Your task to perform on an android device: Go to battery settings Image 0: 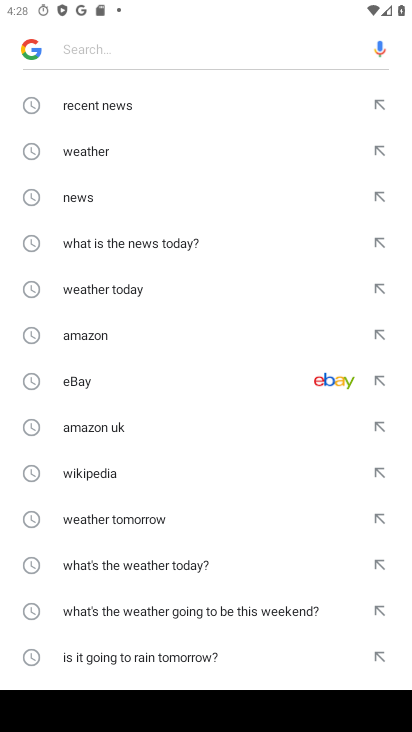
Step 0: press home button
Your task to perform on an android device: Go to battery settings Image 1: 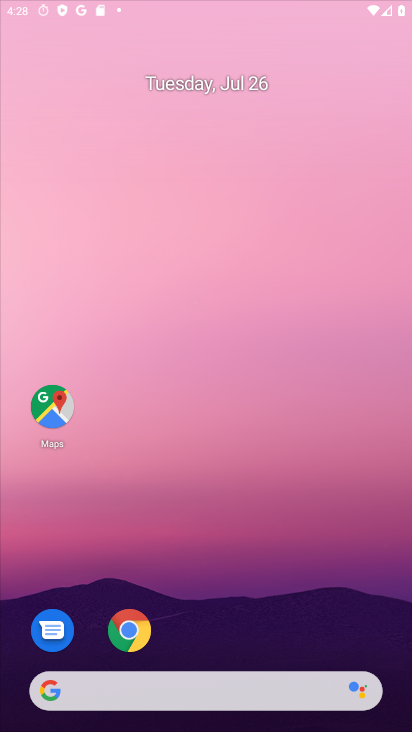
Step 1: drag from (316, 589) to (152, 80)
Your task to perform on an android device: Go to battery settings Image 2: 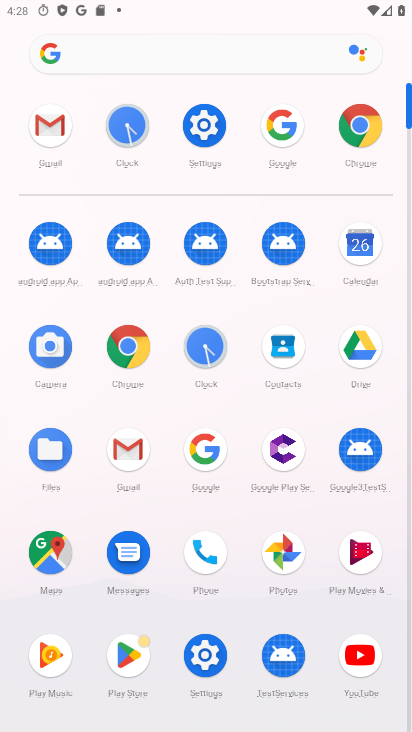
Step 2: click (200, 128)
Your task to perform on an android device: Go to battery settings Image 3: 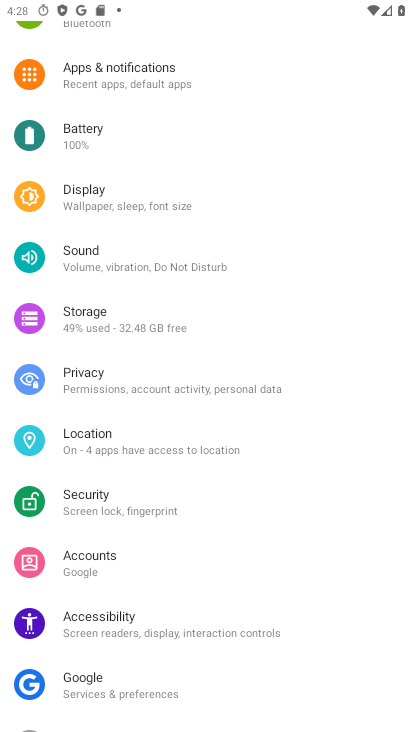
Step 3: click (87, 119)
Your task to perform on an android device: Go to battery settings Image 4: 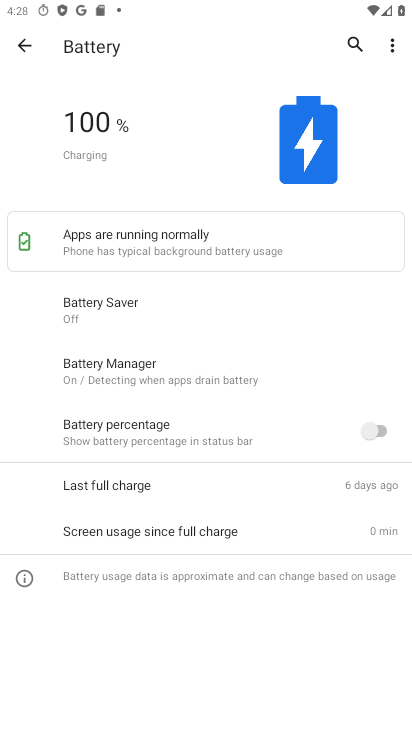
Step 4: task complete